Your task to perform on an android device: toggle notifications settings in the gmail app Image 0: 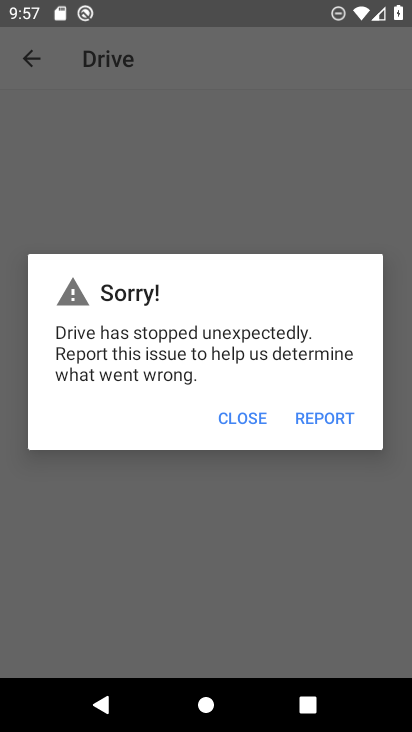
Step 0: press home button
Your task to perform on an android device: toggle notifications settings in the gmail app Image 1: 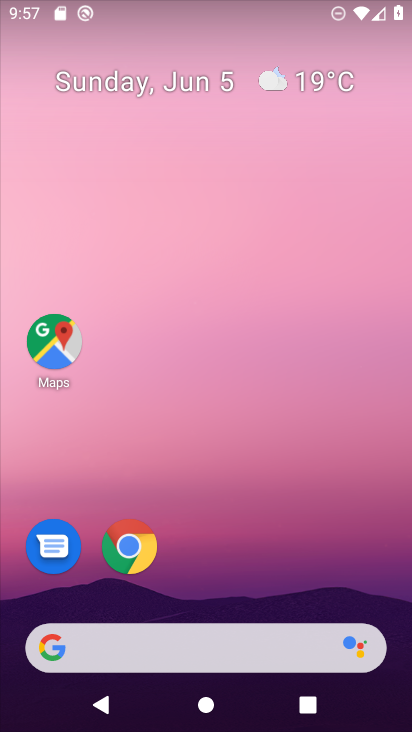
Step 1: drag from (212, 605) to (37, 17)
Your task to perform on an android device: toggle notifications settings in the gmail app Image 2: 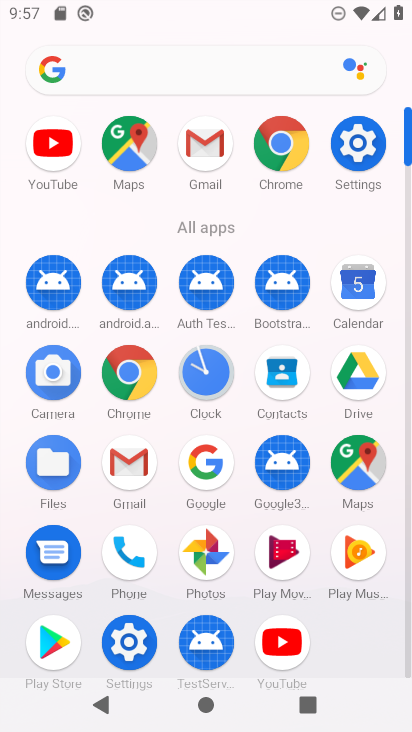
Step 2: click (147, 483)
Your task to perform on an android device: toggle notifications settings in the gmail app Image 3: 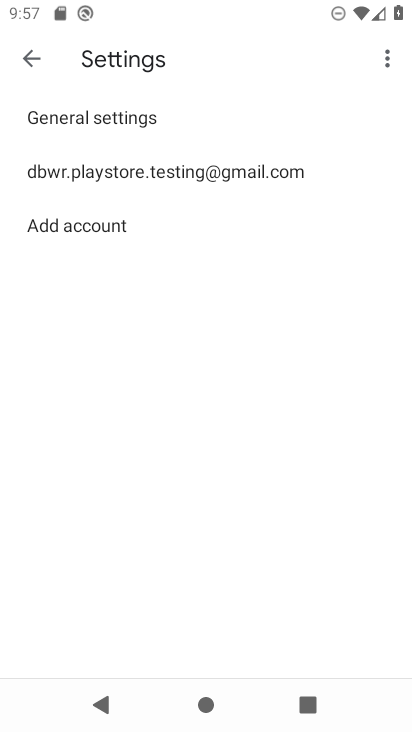
Step 3: click (116, 114)
Your task to perform on an android device: toggle notifications settings in the gmail app Image 4: 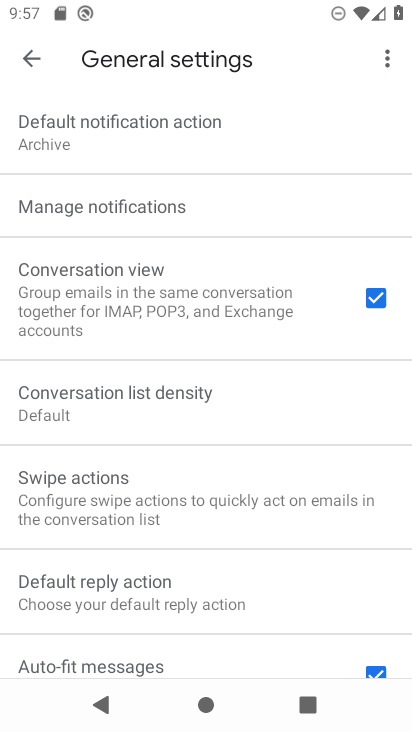
Step 4: click (95, 215)
Your task to perform on an android device: toggle notifications settings in the gmail app Image 5: 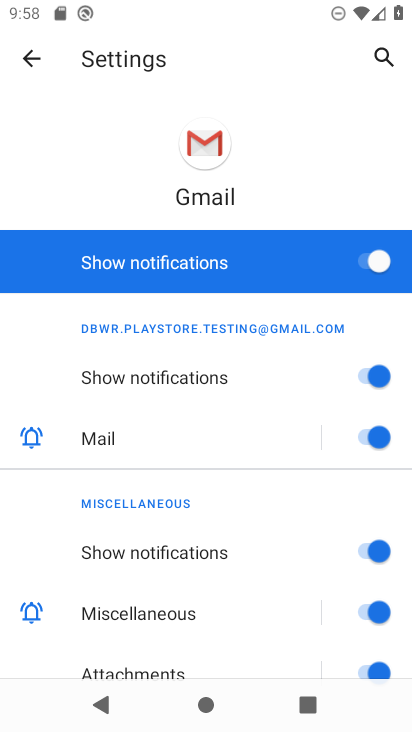
Step 5: click (353, 269)
Your task to perform on an android device: toggle notifications settings in the gmail app Image 6: 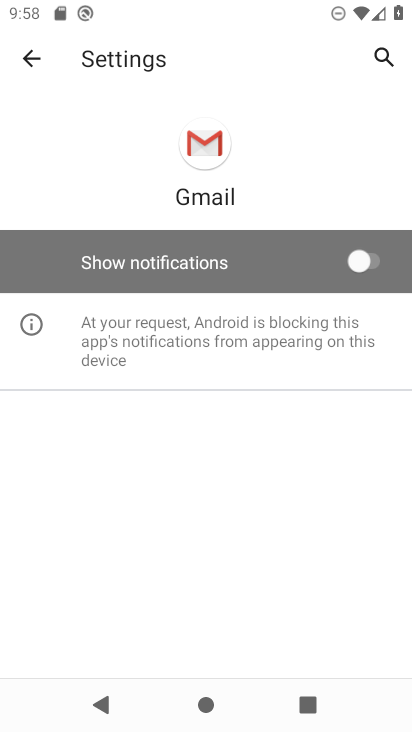
Step 6: task complete